Your task to perform on an android device: delete a single message in the gmail app Image 0: 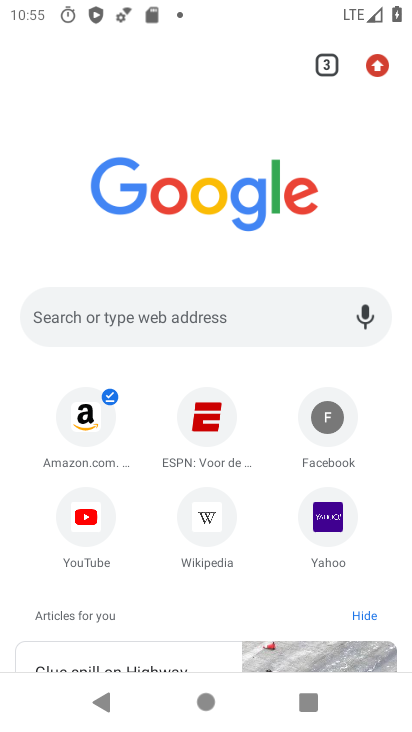
Step 0: press home button
Your task to perform on an android device: delete a single message in the gmail app Image 1: 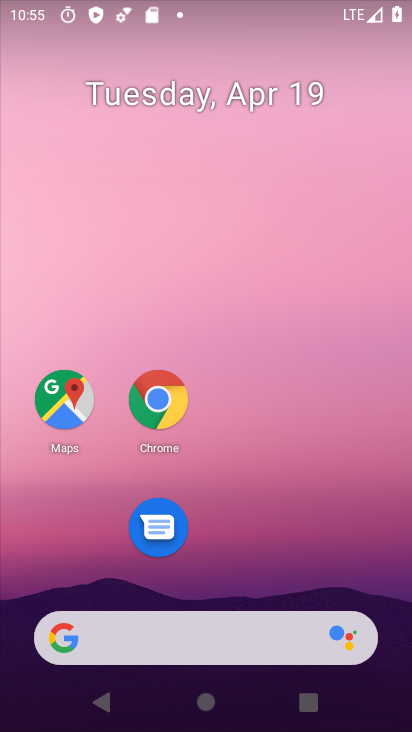
Step 1: drag from (245, 670) to (108, 184)
Your task to perform on an android device: delete a single message in the gmail app Image 2: 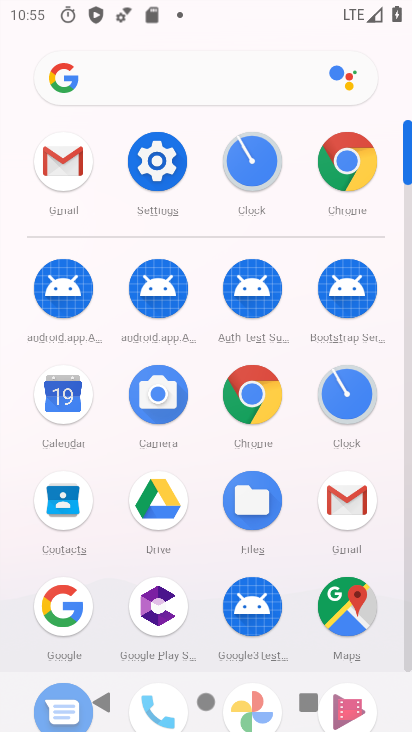
Step 2: click (340, 488)
Your task to perform on an android device: delete a single message in the gmail app Image 3: 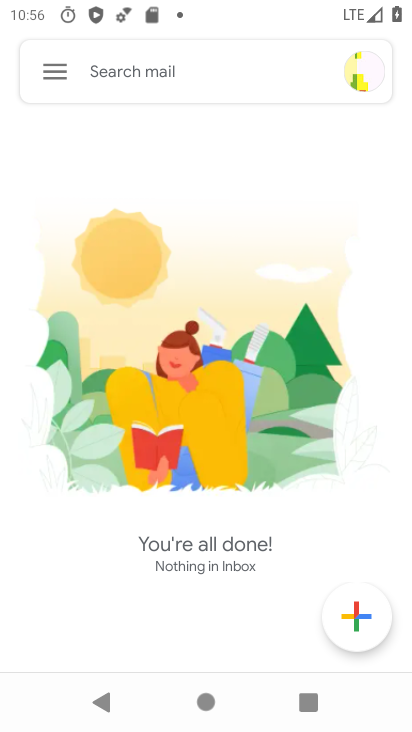
Step 3: click (51, 78)
Your task to perform on an android device: delete a single message in the gmail app Image 4: 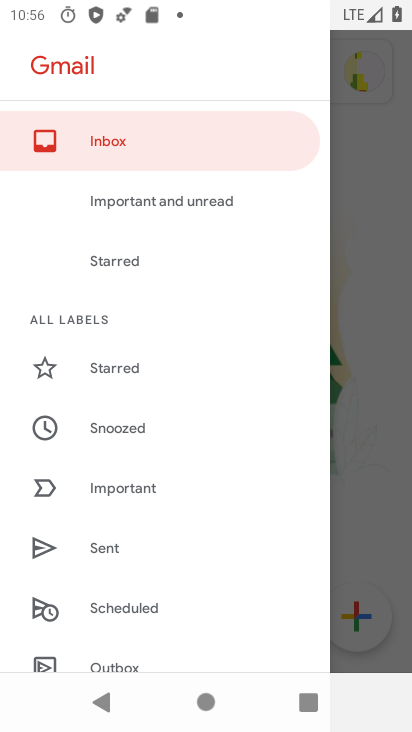
Step 4: drag from (150, 557) to (121, 322)
Your task to perform on an android device: delete a single message in the gmail app Image 5: 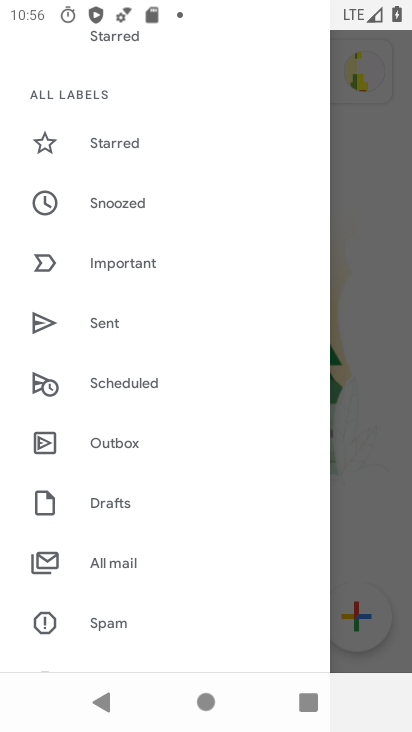
Step 5: click (107, 559)
Your task to perform on an android device: delete a single message in the gmail app Image 6: 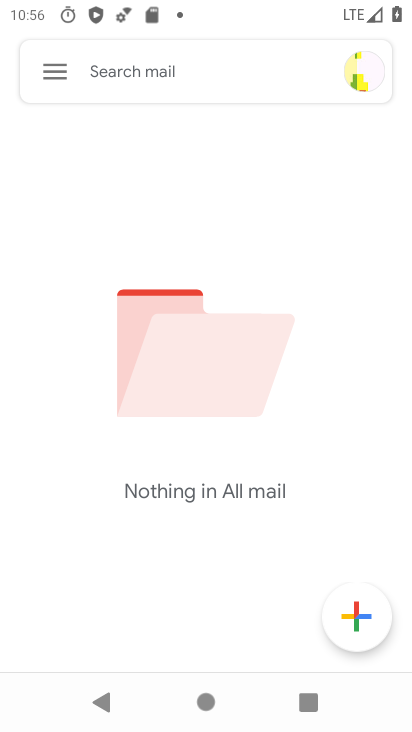
Step 6: task complete